Your task to perform on an android device: Search for 12ft 120W LED tube light on home depot Image 0: 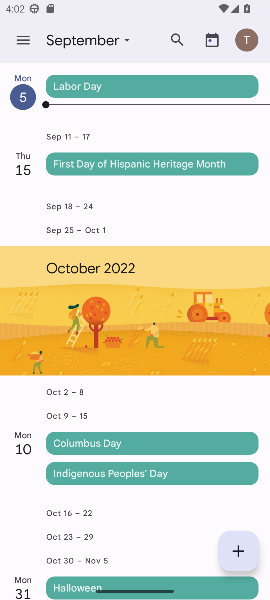
Step 0: press home button
Your task to perform on an android device: Search for 12ft 120W LED tube light on home depot Image 1: 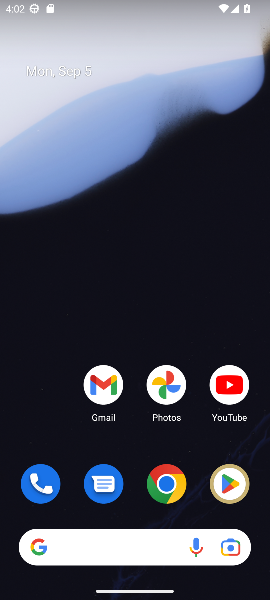
Step 1: click (165, 477)
Your task to perform on an android device: Search for 12ft 120W LED tube light on home depot Image 2: 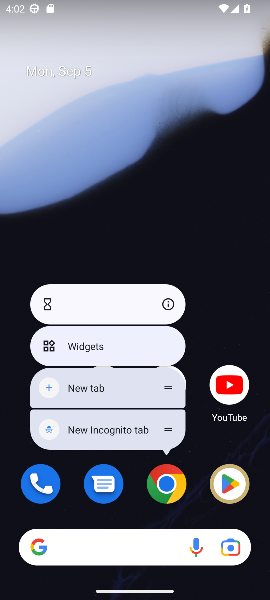
Step 2: click (162, 486)
Your task to perform on an android device: Search for 12ft 120W LED tube light on home depot Image 3: 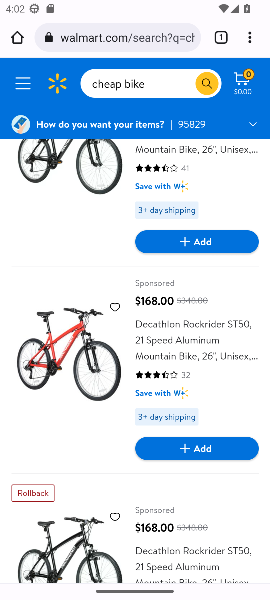
Step 3: click (179, 39)
Your task to perform on an android device: Search for 12ft 120W LED tube light on home depot Image 4: 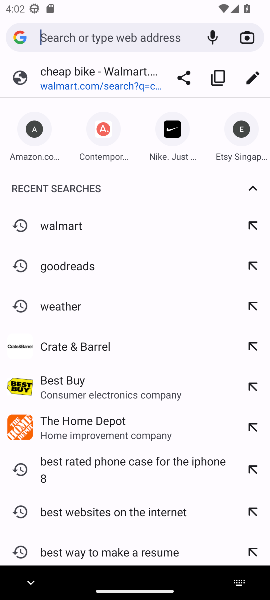
Step 4: type "home depot"
Your task to perform on an android device: Search for 12ft 120W LED tube light on home depot Image 5: 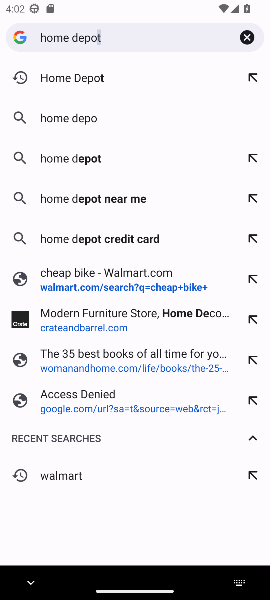
Step 5: press enter
Your task to perform on an android device: Search for 12ft 120W LED tube light on home depot Image 6: 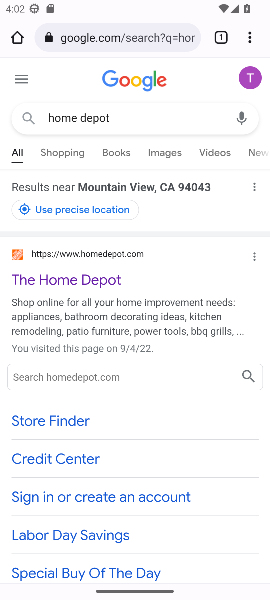
Step 6: click (108, 504)
Your task to perform on an android device: Search for 12ft 120W LED tube light on home depot Image 7: 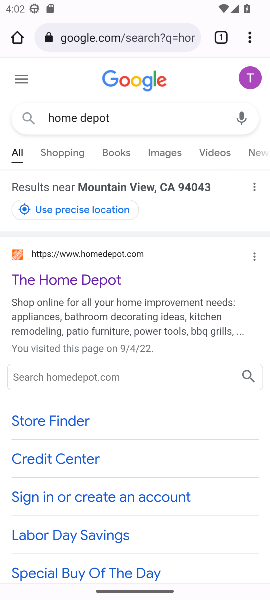
Step 7: click (94, 284)
Your task to perform on an android device: Search for 12ft 120W LED tube light on home depot Image 8: 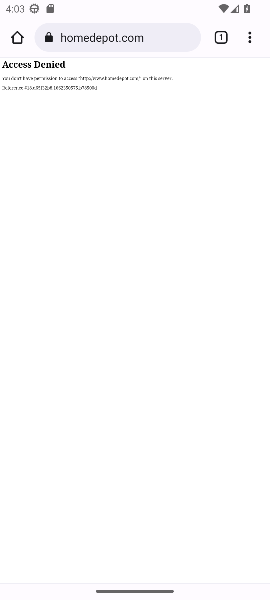
Step 8: task complete